Your task to perform on an android device: Open Google Maps and go to "Timeline" Image 0: 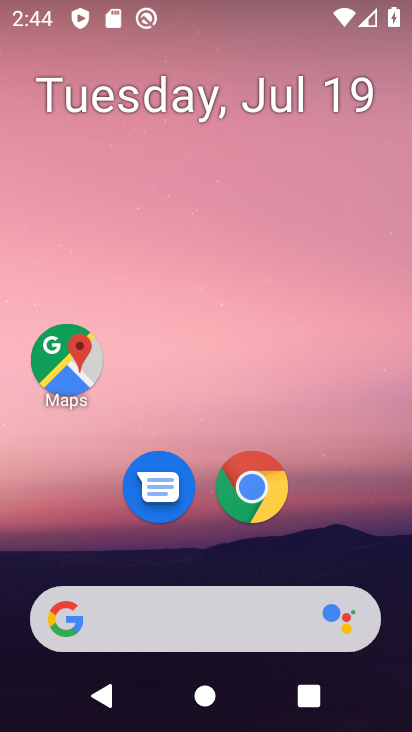
Step 0: click (49, 370)
Your task to perform on an android device: Open Google Maps and go to "Timeline" Image 1: 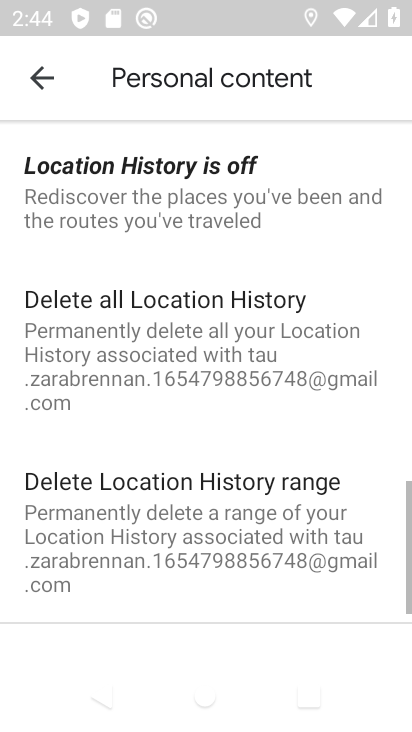
Step 1: click (34, 96)
Your task to perform on an android device: Open Google Maps and go to "Timeline" Image 2: 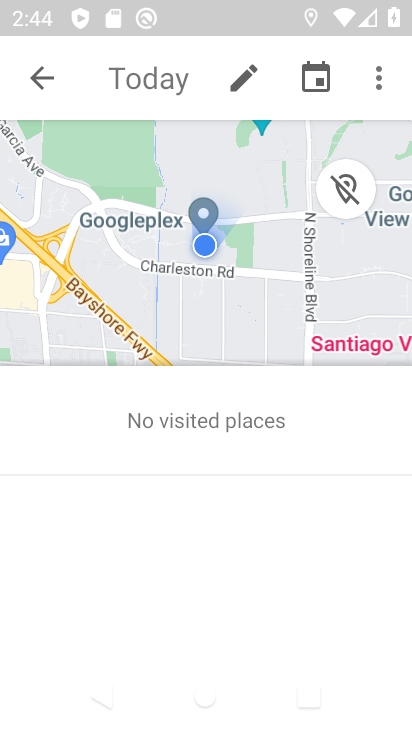
Step 2: task complete